Your task to perform on an android device: Open calendar and show me the third week of next month Image 0: 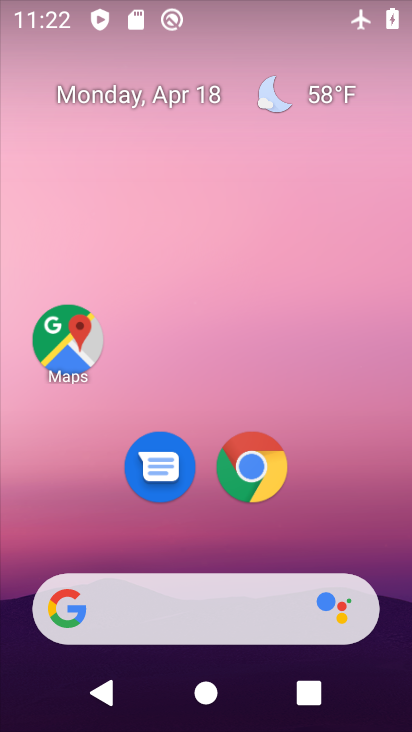
Step 0: press home button
Your task to perform on an android device: Open calendar and show me the third week of next month Image 1: 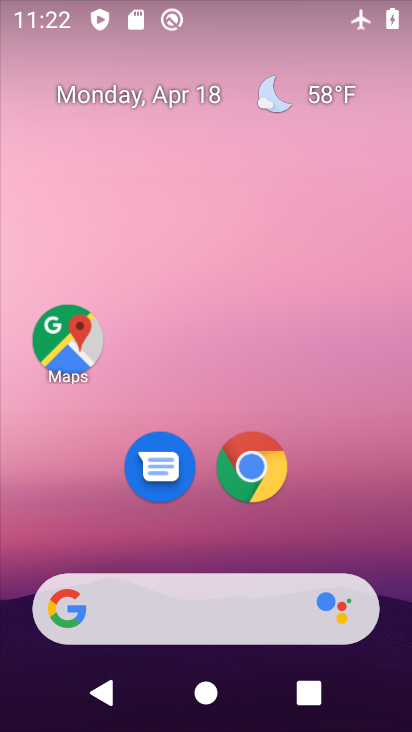
Step 1: drag from (223, 422) to (254, 97)
Your task to perform on an android device: Open calendar and show me the third week of next month Image 2: 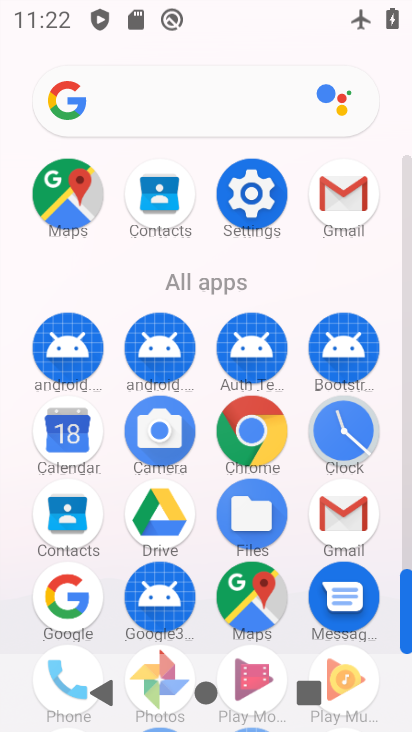
Step 2: click (80, 441)
Your task to perform on an android device: Open calendar and show me the third week of next month Image 3: 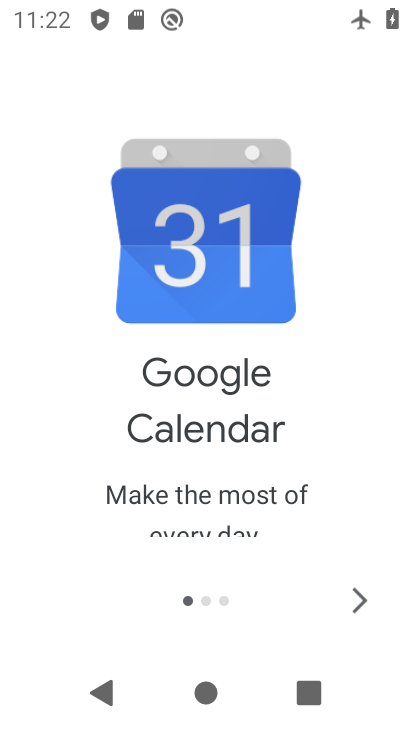
Step 3: click (356, 603)
Your task to perform on an android device: Open calendar and show me the third week of next month Image 4: 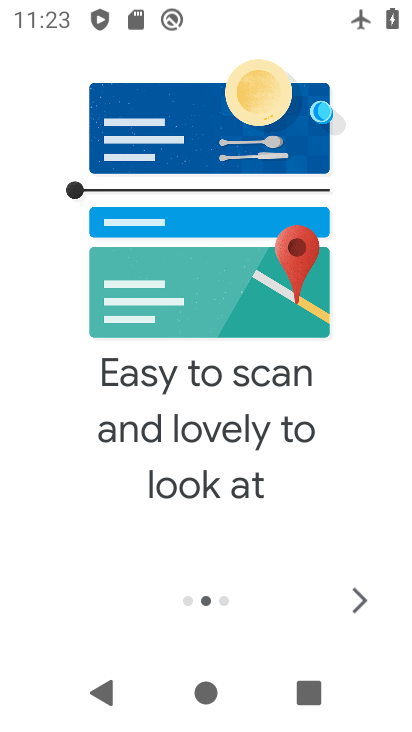
Step 4: click (363, 601)
Your task to perform on an android device: Open calendar and show me the third week of next month Image 5: 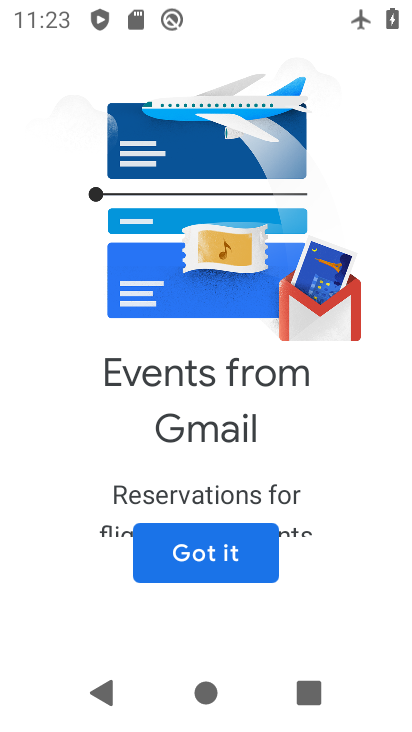
Step 5: click (226, 564)
Your task to perform on an android device: Open calendar and show me the third week of next month Image 6: 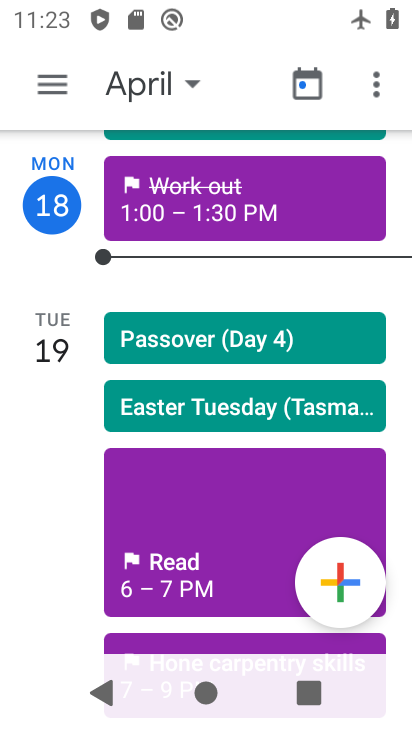
Step 6: click (58, 80)
Your task to perform on an android device: Open calendar and show me the third week of next month Image 7: 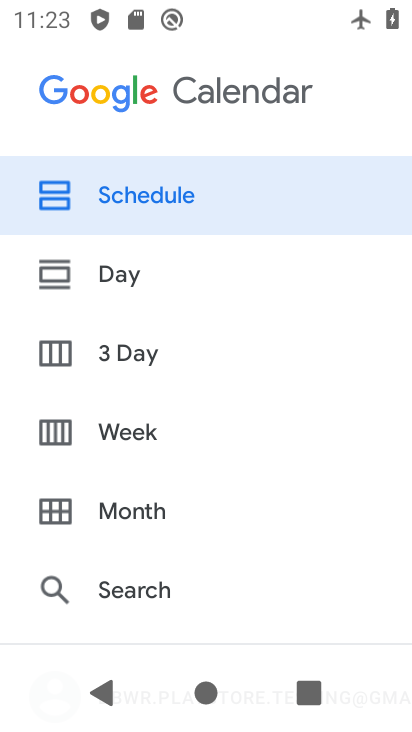
Step 7: click (127, 408)
Your task to perform on an android device: Open calendar and show me the third week of next month Image 8: 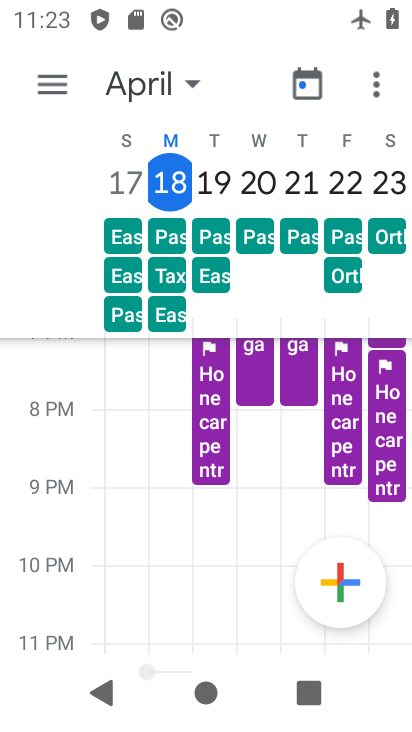
Step 8: click (182, 76)
Your task to perform on an android device: Open calendar and show me the third week of next month Image 9: 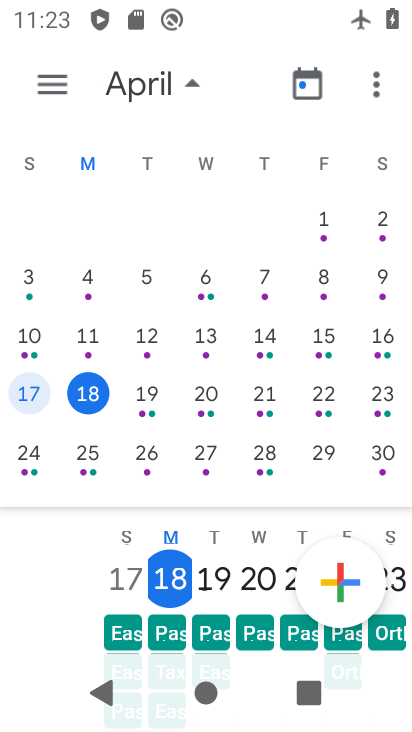
Step 9: drag from (354, 432) to (3, 364)
Your task to perform on an android device: Open calendar and show me the third week of next month Image 10: 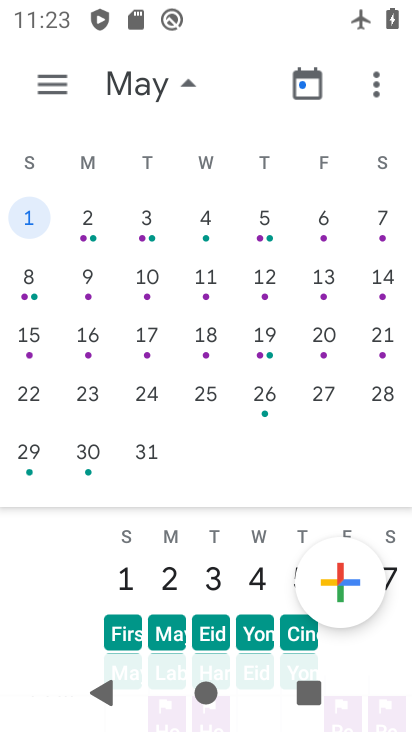
Step 10: click (48, 334)
Your task to perform on an android device: Open calendar and show me the third week of next month Image 11: 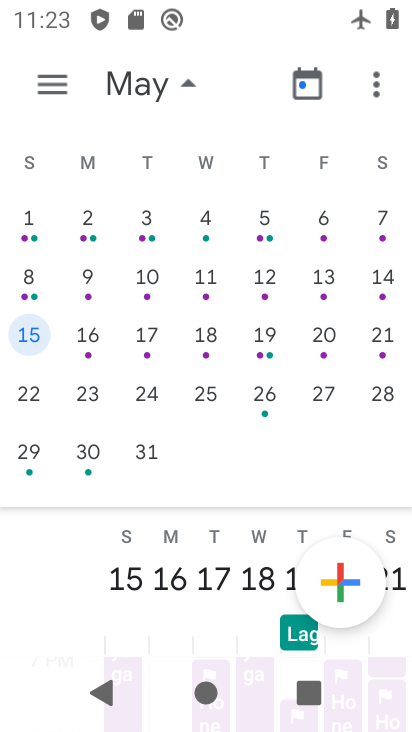
Step 11: task complete